Your task to perform on an android device: What's the weather like in Paris? Image 0: 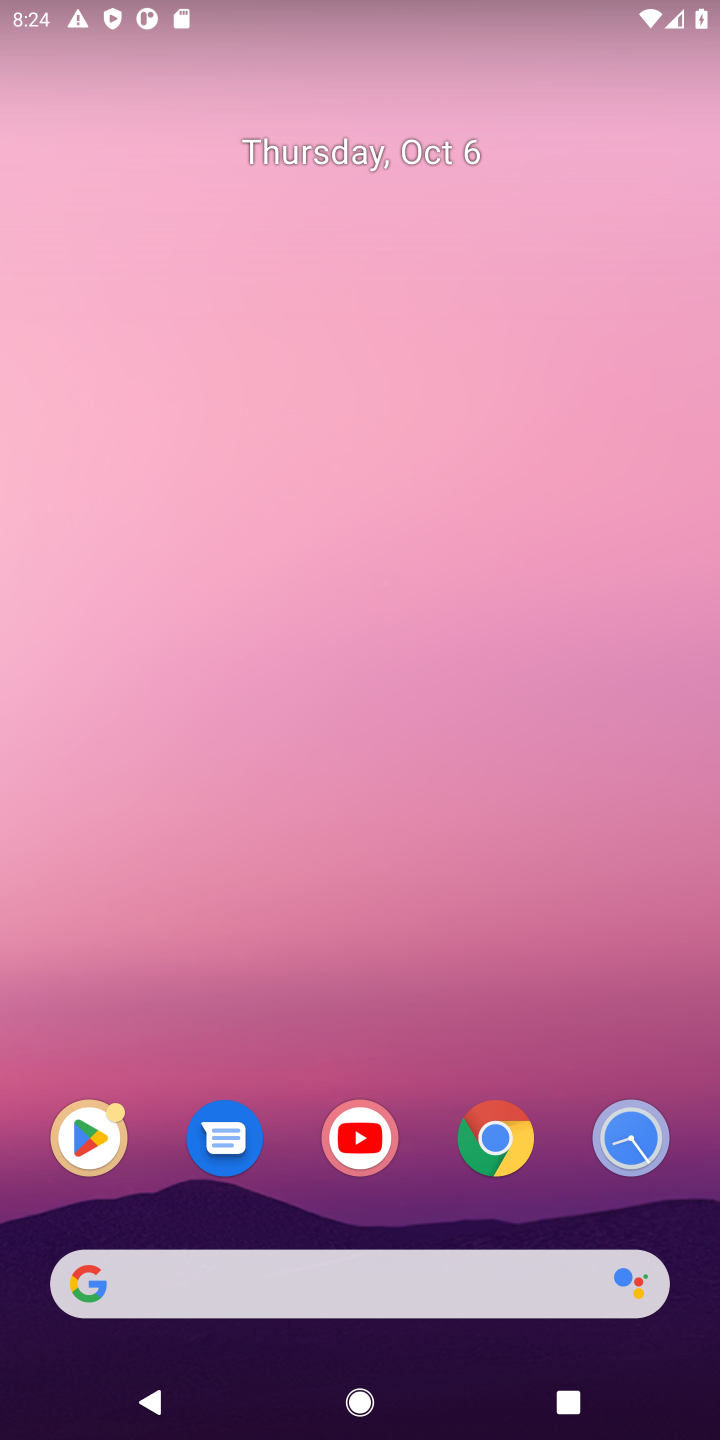
Step 0: click (496, 1136)
Your task to perform on an android device: What's the weather like in Paris? Image 1: 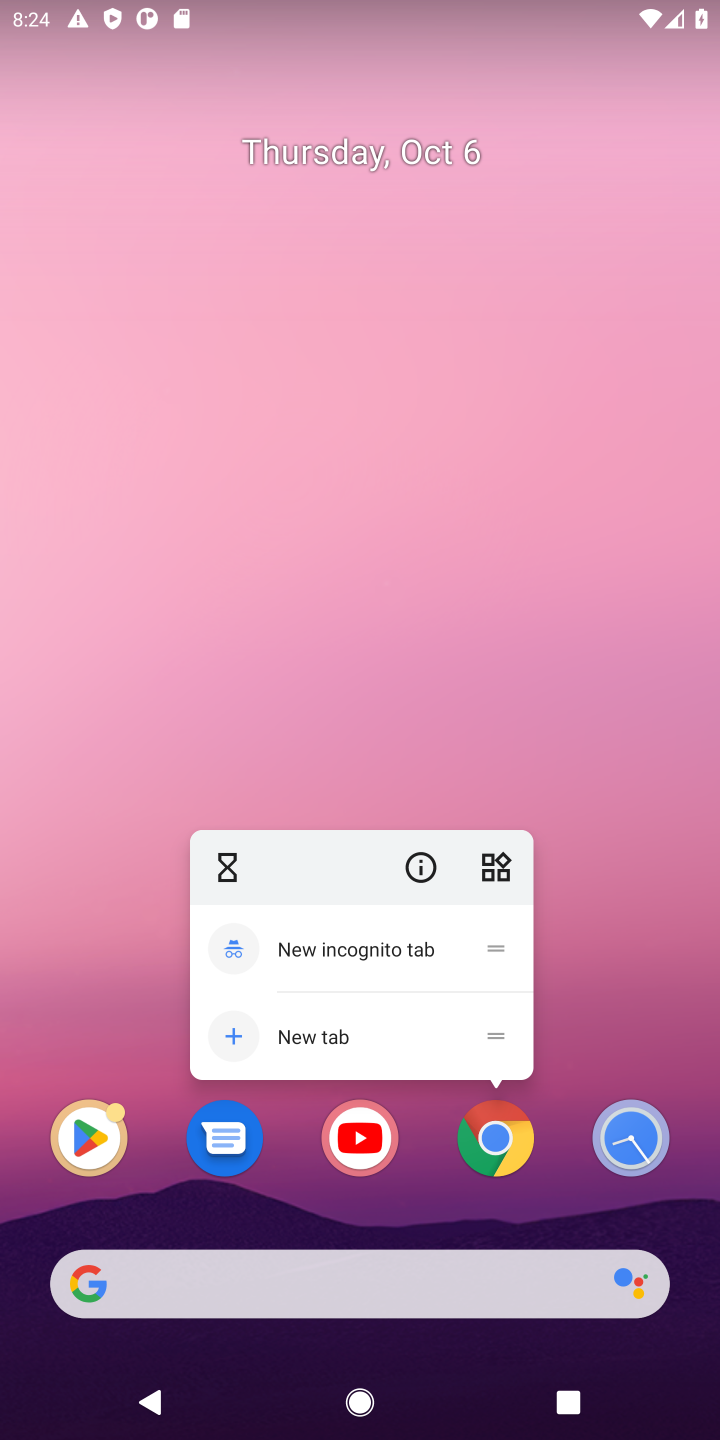
Step 1: click (487, 1145)
Your task to perform on an android device: What's the weather like in Paris? Image 2: 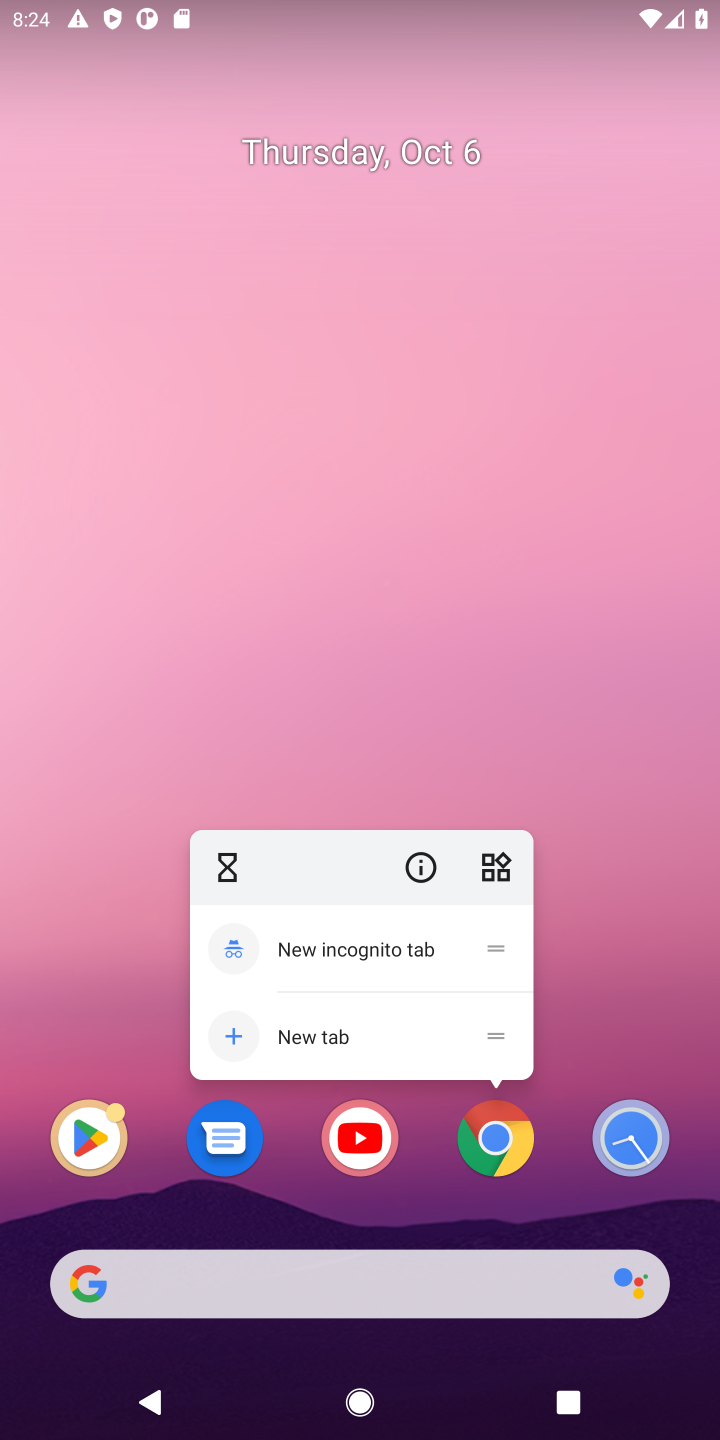
Step 2: click (491, 1148)
Your task to perform on an android device: What's the weather like in Paris? Image 3: 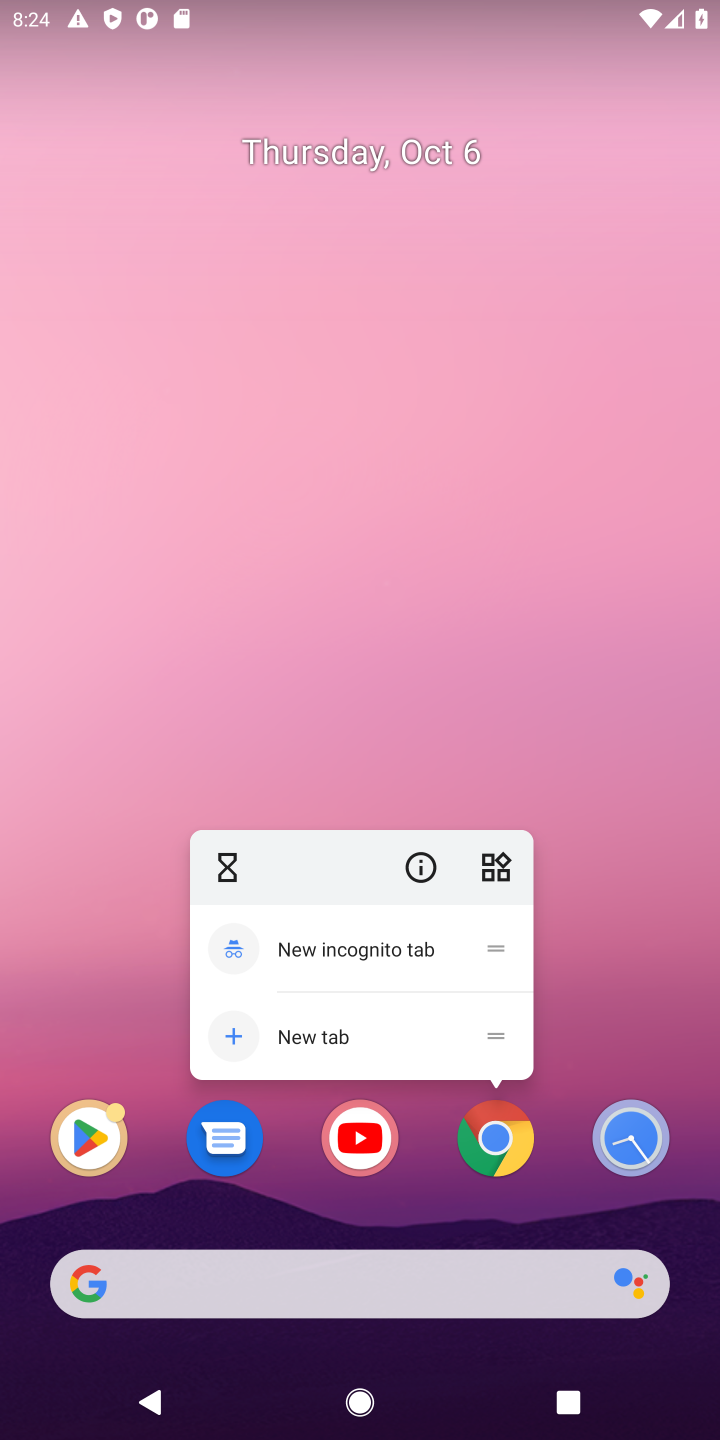
Step 3: click (507, 1128)
Your task to perform on an android device: What's the weather like in Paris? Image 4: 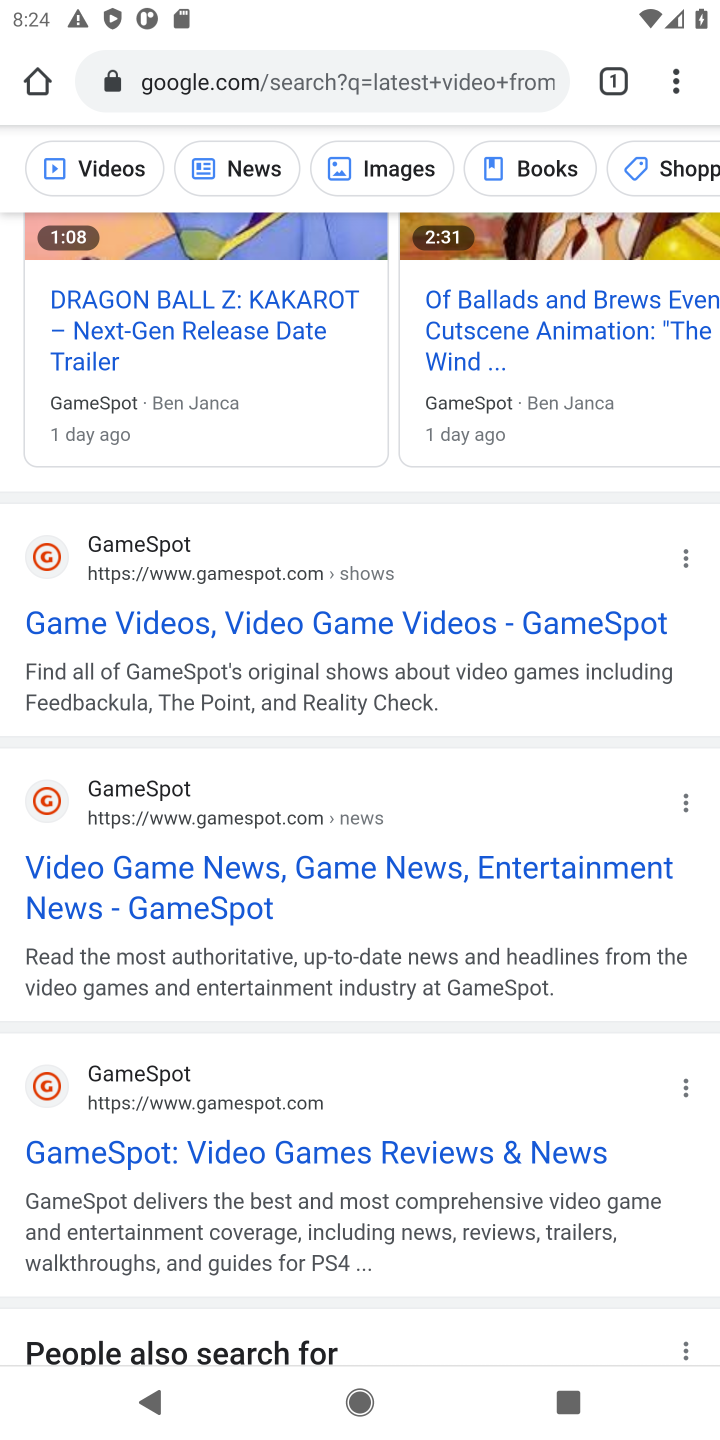
Step 4: click (498, 71)
Your task to perform on an android device: What's the weather like in Paris? Image 5: 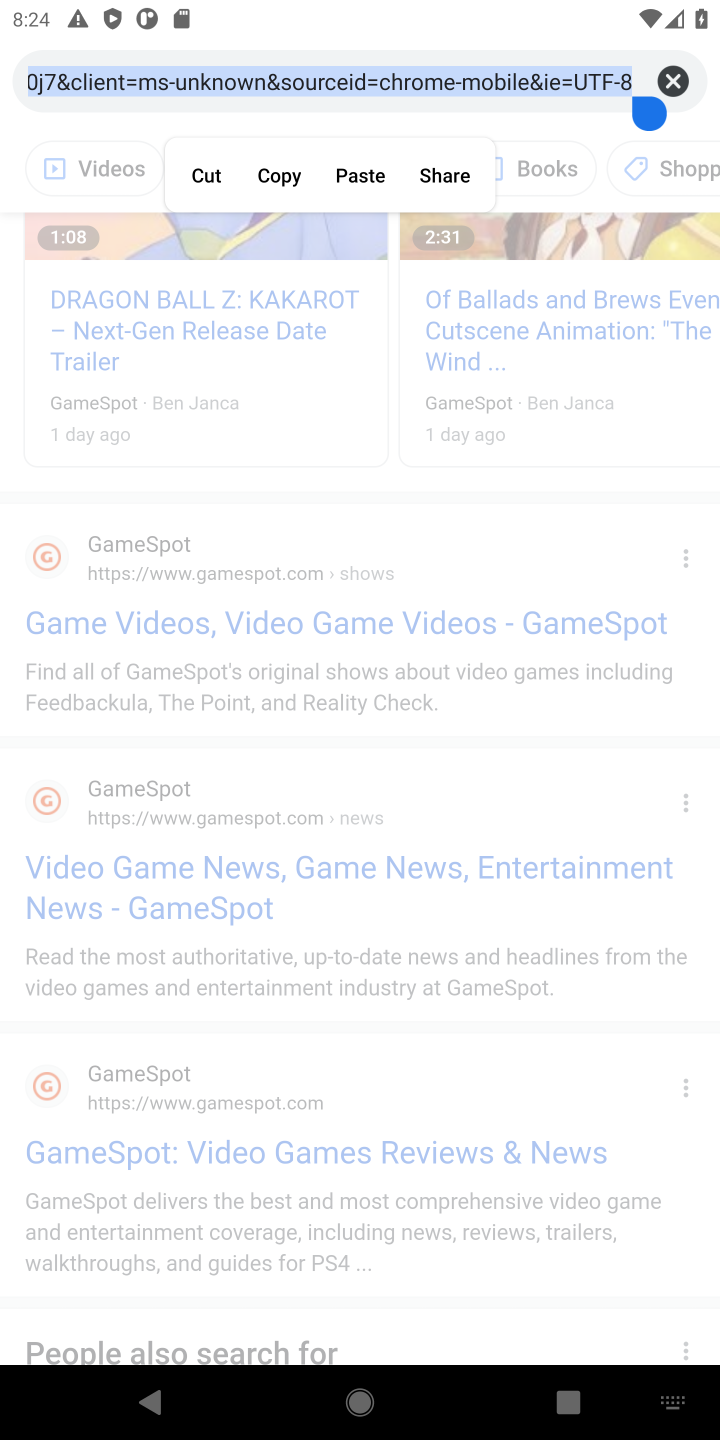
Step 5: click (662, 83)
Your task to perform on an android device: What's the weather like in Paris? Image 6: 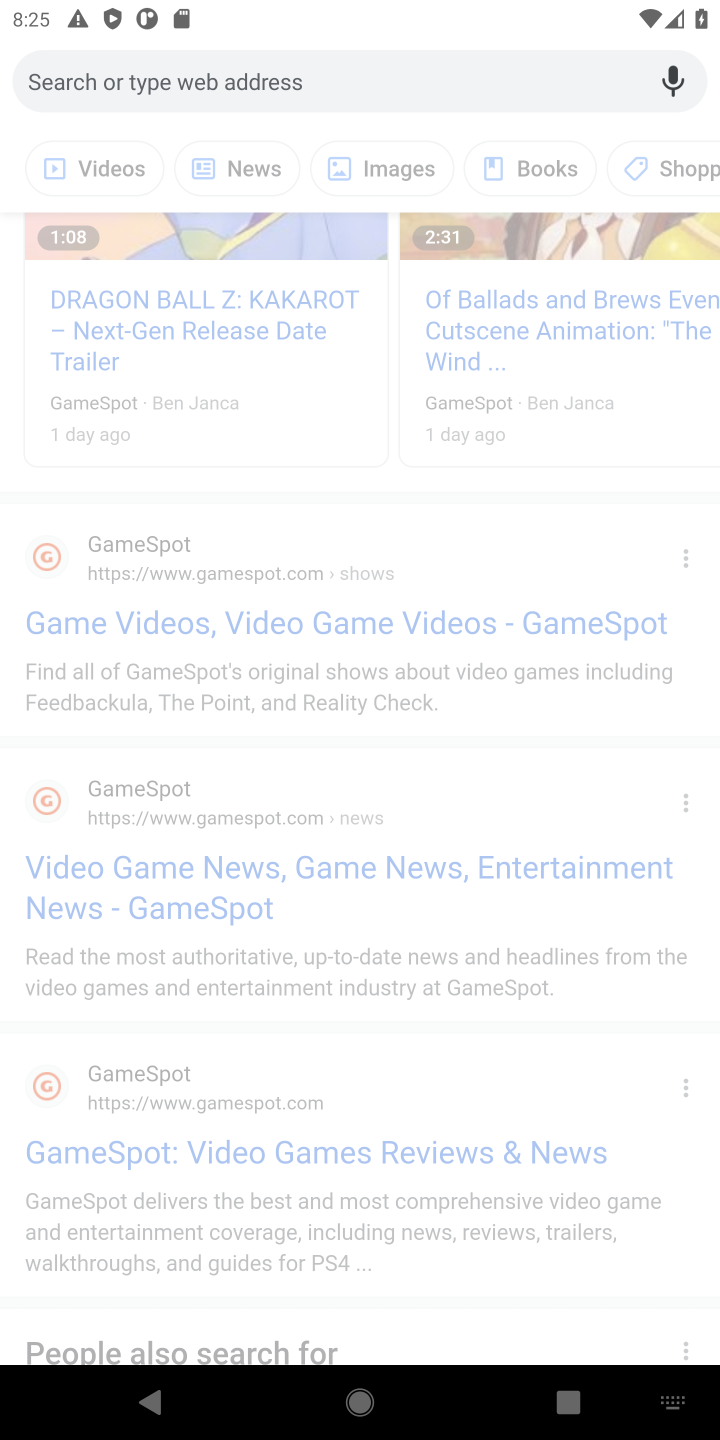
Step 6: type "What's the weather like in Paris"
Your task to perform on an android device: What's the weather like in Paris? Image 7: 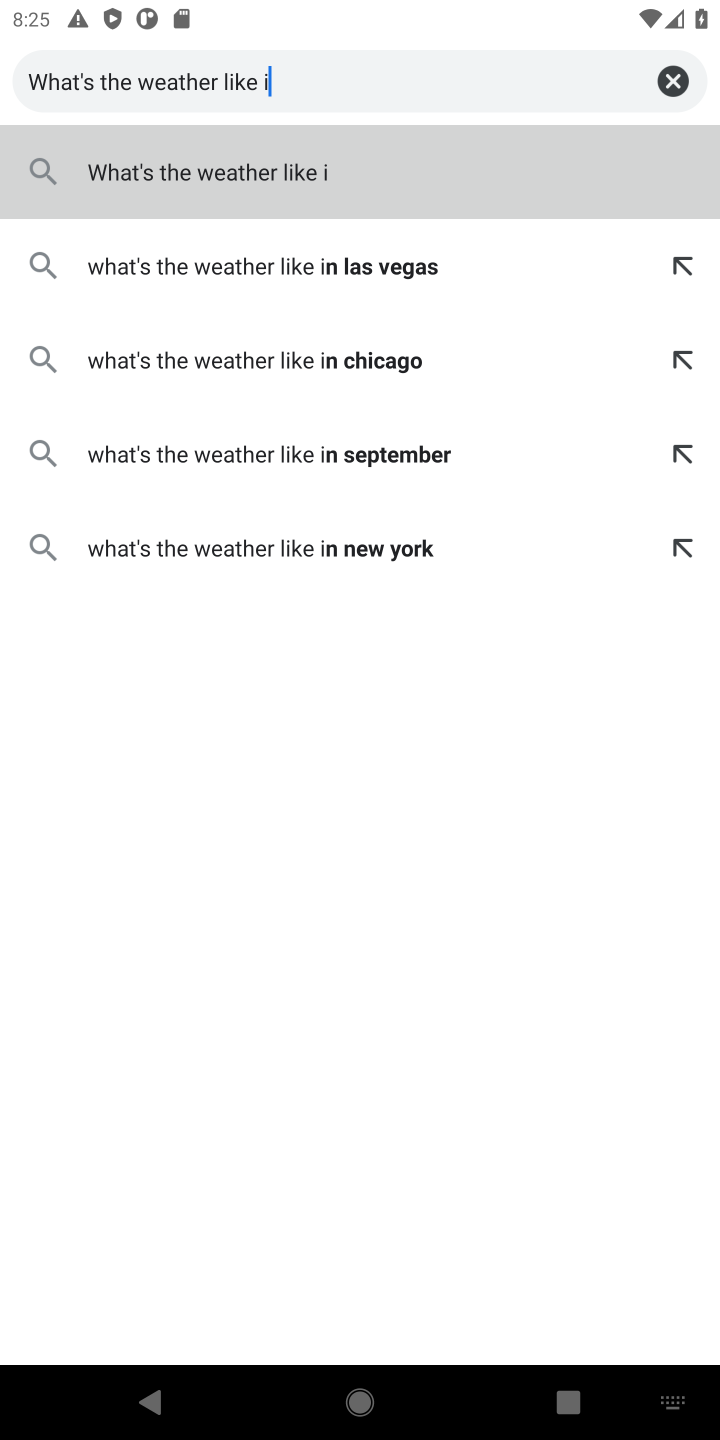
Step 7: click (673, 87)
Your task to perform on an android device: What's the weather like in Paris? Image 8: 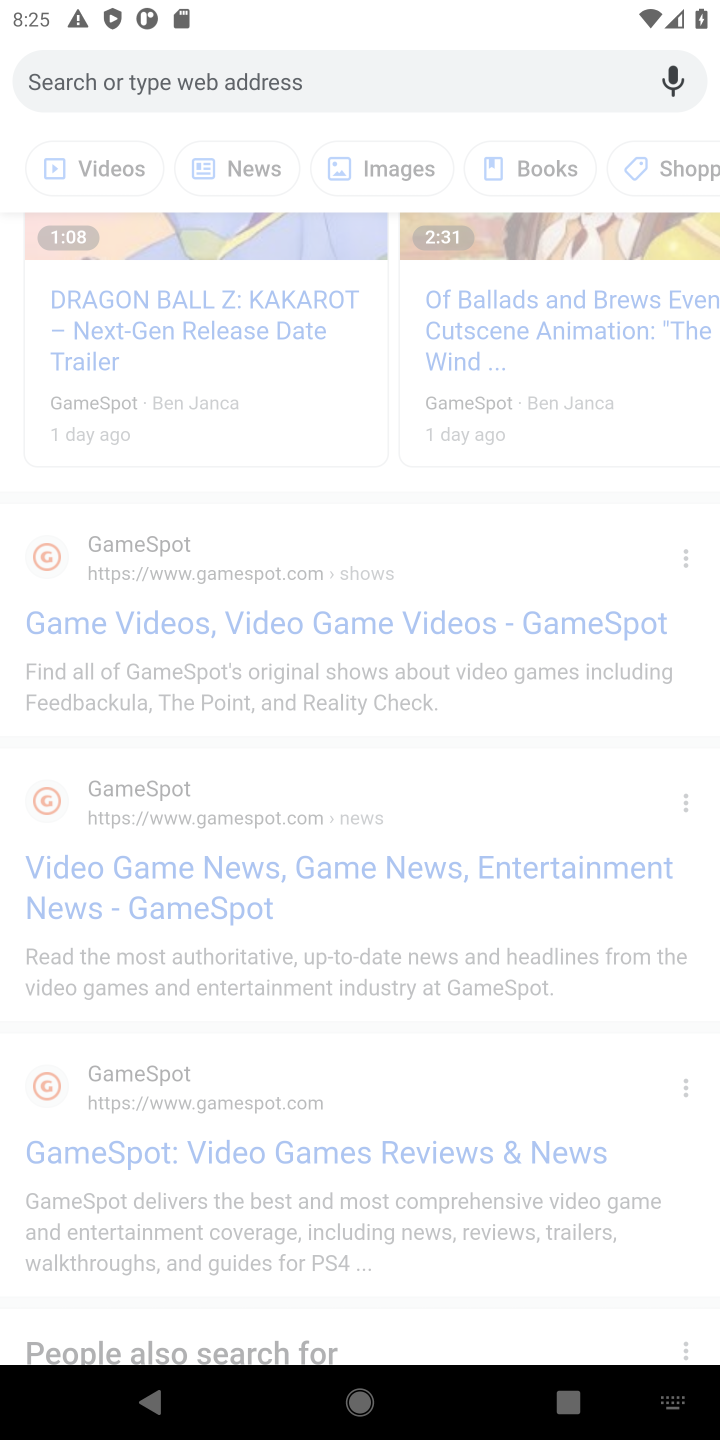
Step 8: type "weather like in Paris"
Your task to perform on an android device: What's the weather like in Paris? Image 9: 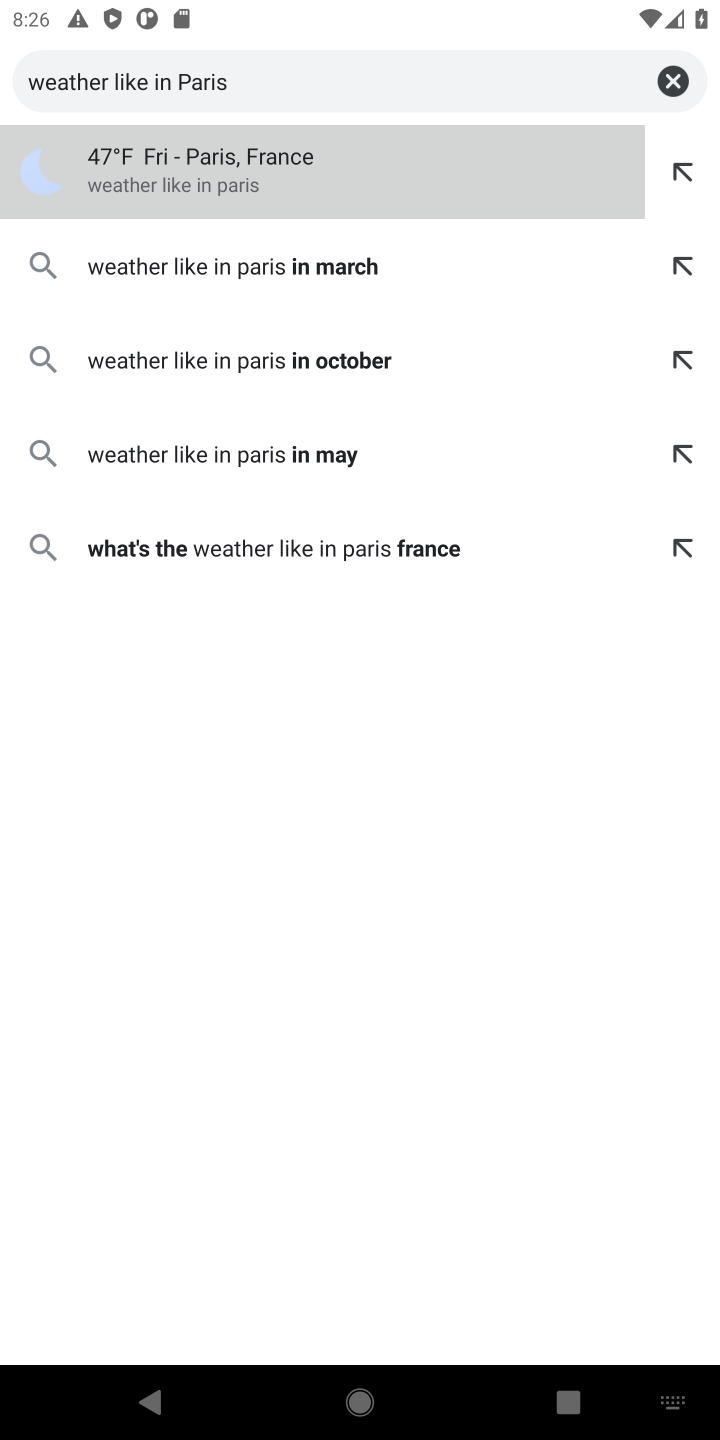
Step 9: click (276, 190)
Your task to perform on an android device: What's the weather like in Paris? Image 10: 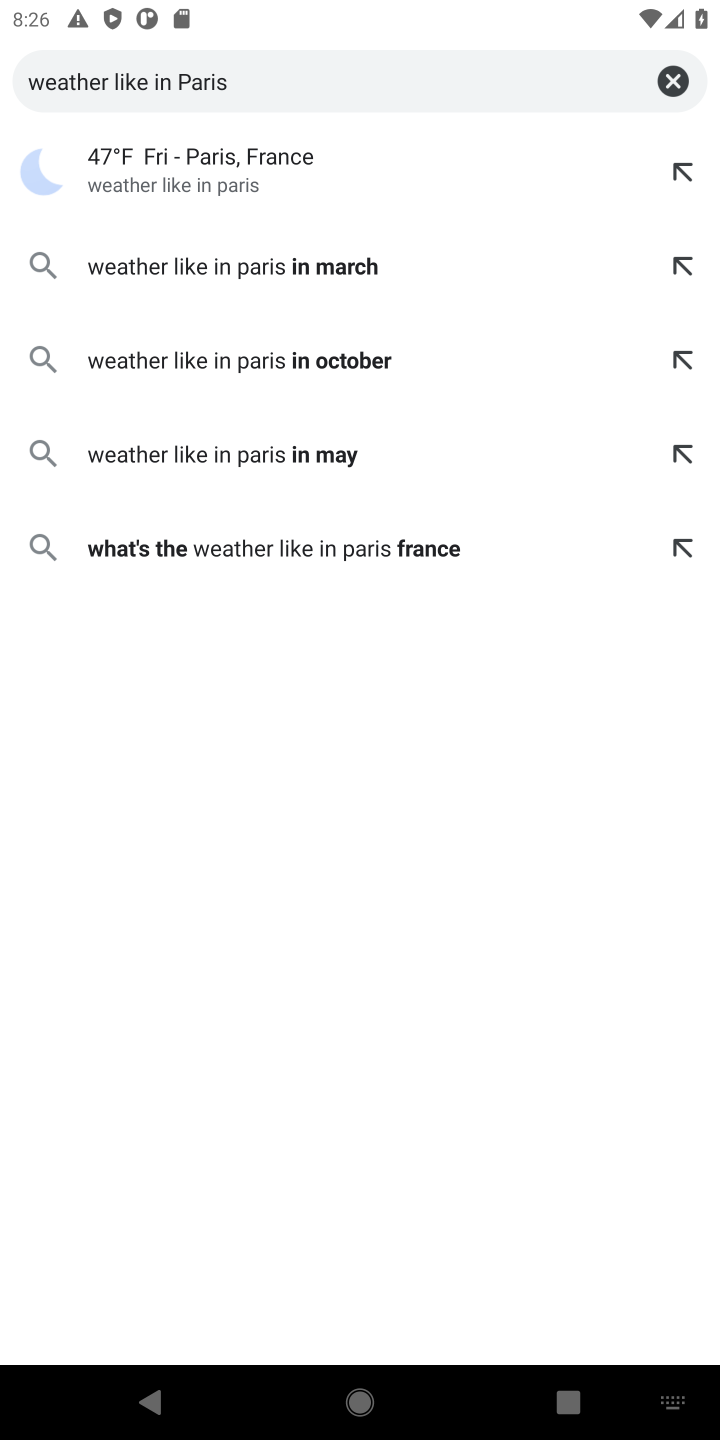
Step 10: click (215, 159)
Your task to perform on an android device: What's the weather like in Paris? Image 11: 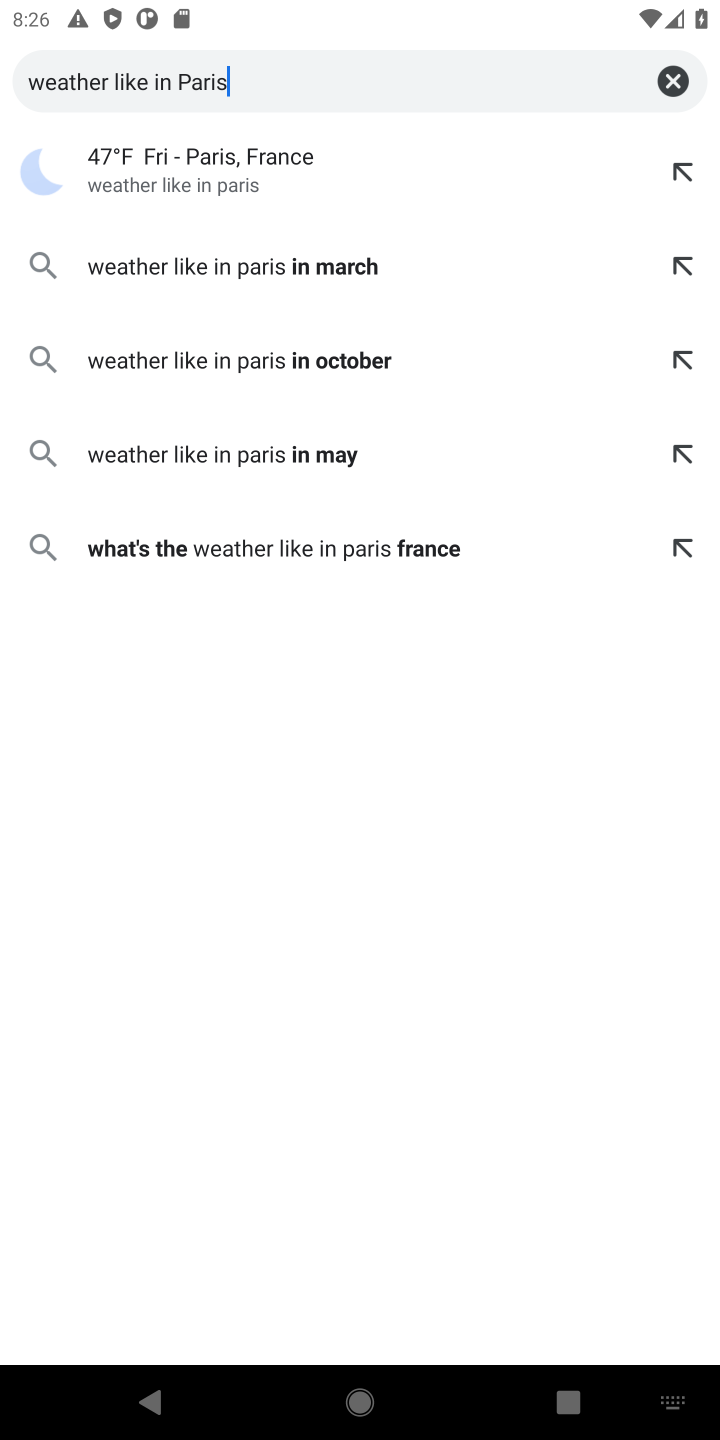
Step 11: click (206, 179)
Your task to perform on an android device: What's the weather like in Paris? Image 12: 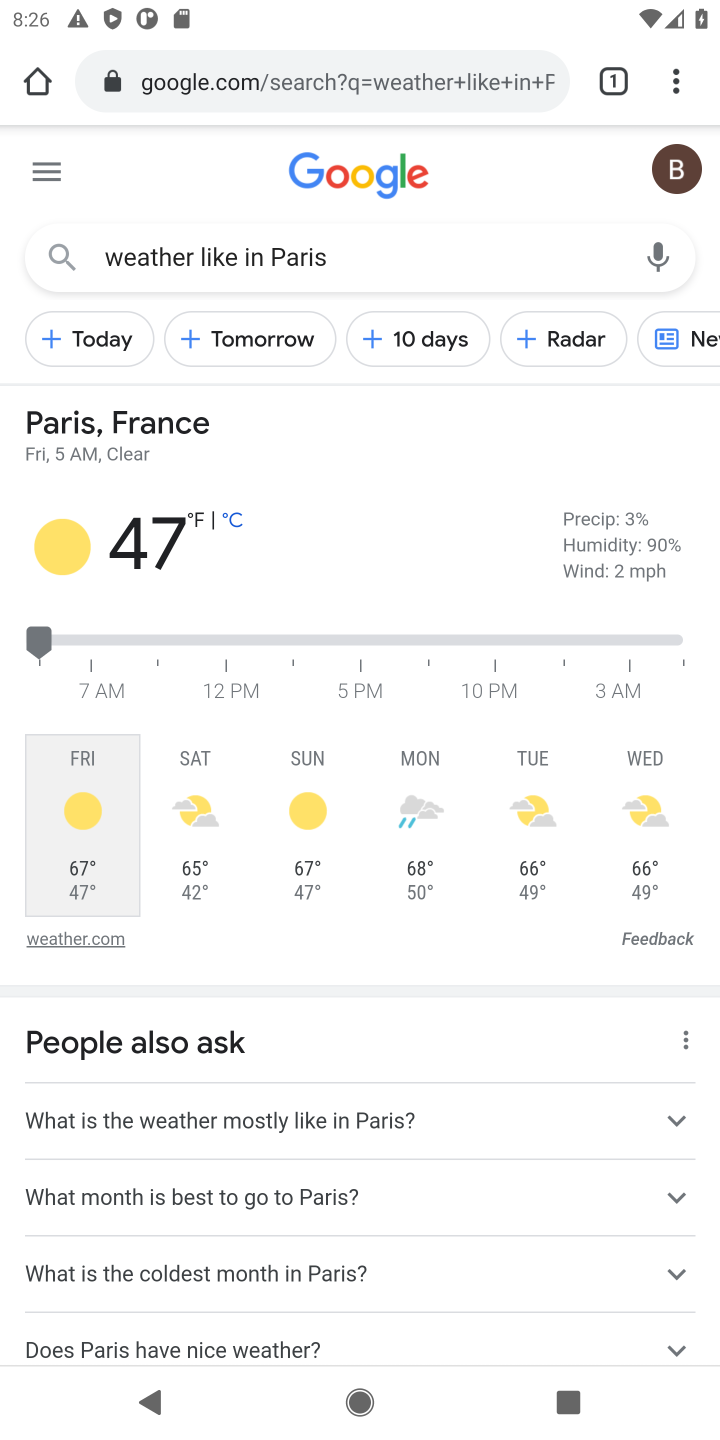
Step 12: task complete